Your task to perform on an android device: turn off smart reply in the gmail app Image 0: 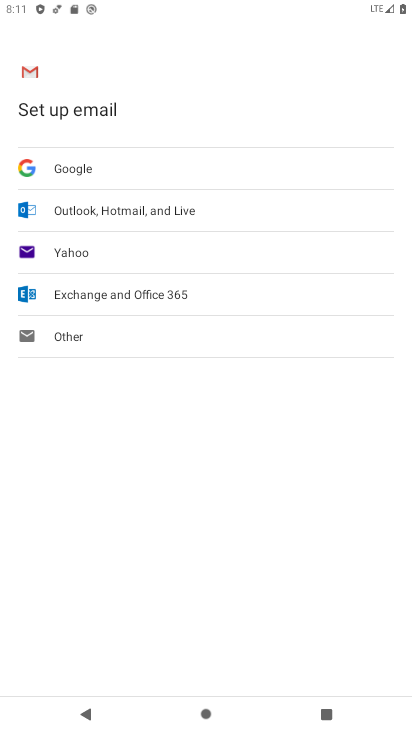
Step 0: press home button
Your task to perform on an android device: turn off smart reply in the gmail app Image 1: 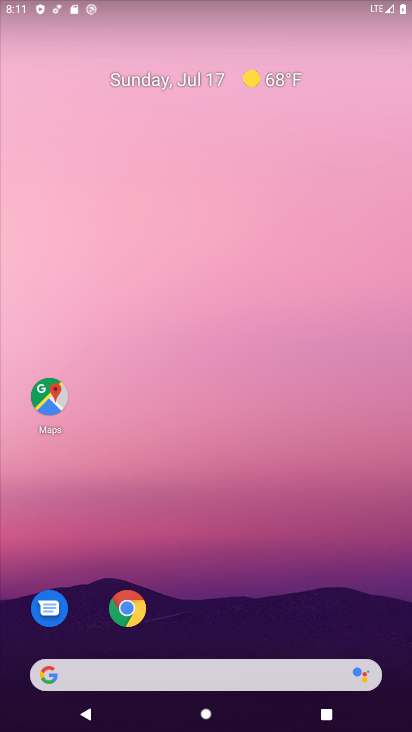
Step 1: drag from (264, 617) to (284, 12)
Your task to perform on an android device: turn off smart reply in the gmail app Image 2: 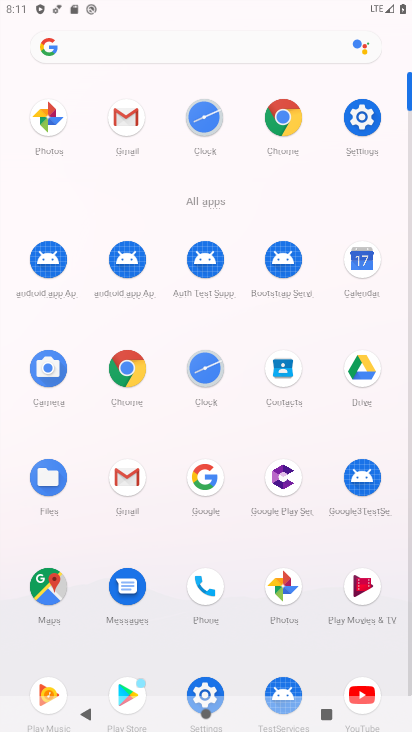
Step 2: click (127, 129)
Your task to perform on an android device: turn off smart reply in the gmail app Image 3: 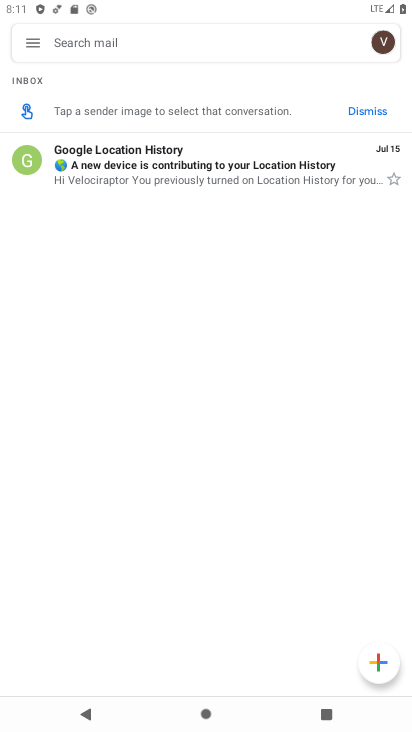
Step 3: click (28, 45)
Your task to perform on an android device: turn off smart reply in the gmail app Image 4: 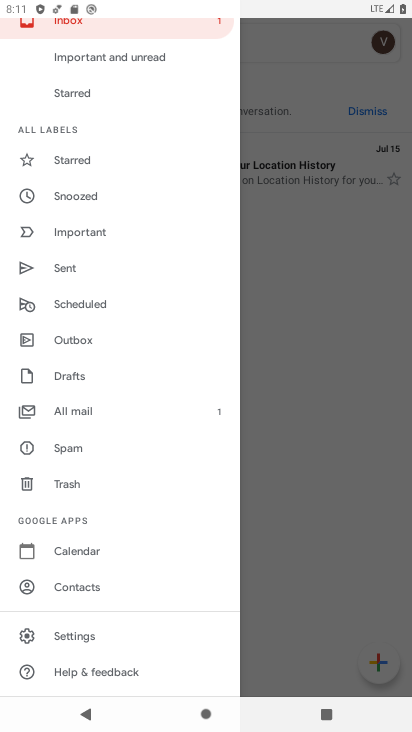
Step 4: click (67, 647)
Your task to perform on an android device: turn off smart reply in the gmail app Image 5: 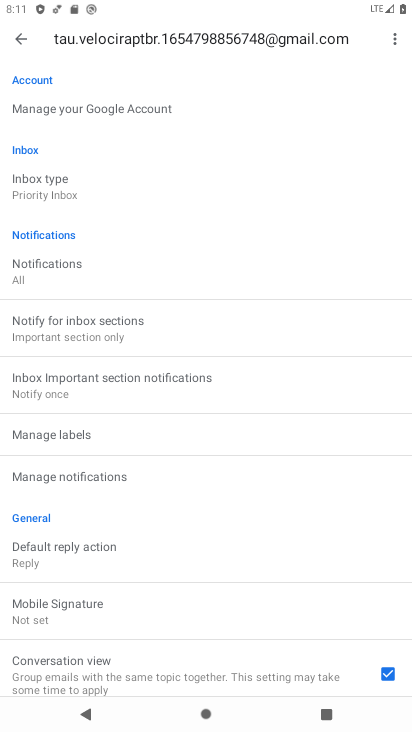
Step 5: drag from (103, 556) to (106, 79)
Your task to perform on an android device: turn off smart reply in the gmail app Image 6: 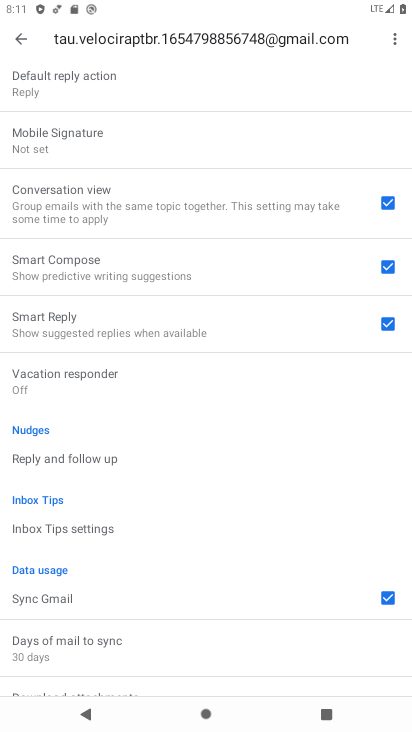
Step 6: click (391, 324)
Your task to perform on an android device: turn off smart reply in the gmail app Image 7: 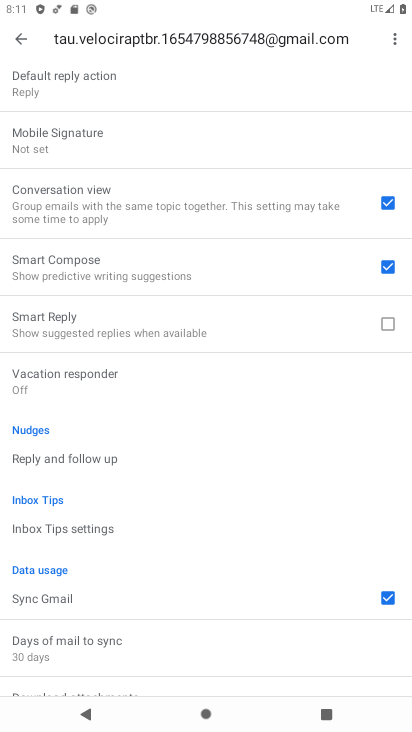
Step 7: task complete